Your task to perform on an android device: Open the calendar app, open the side menu, and click the "Day" option Image 0: 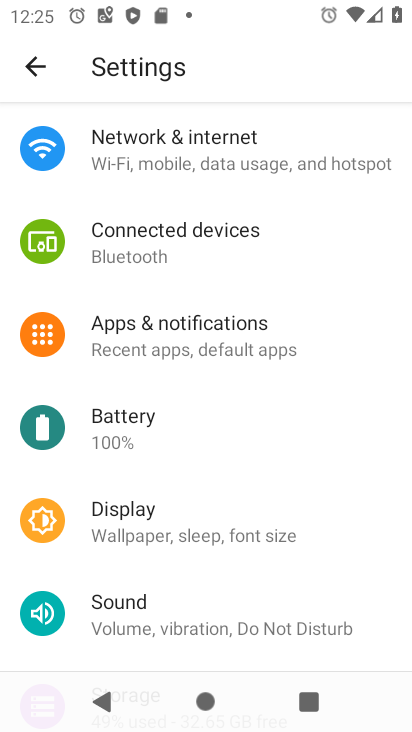
Step 0: press home button
Your task to perform on an android device: Open the calendar app, open the side menu, and click the "Day" option Image 1: 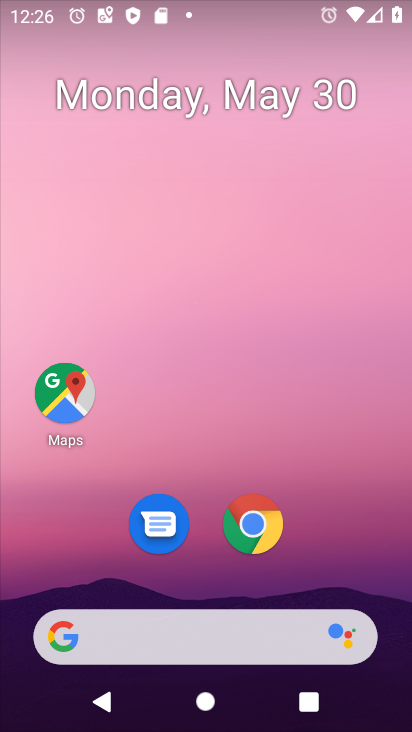
Step 1: drag from (235, 455) to (263, 0)
Your task to perform on an android device: Open the calendar app, open the side menu, and click the "Day" option Image 2: 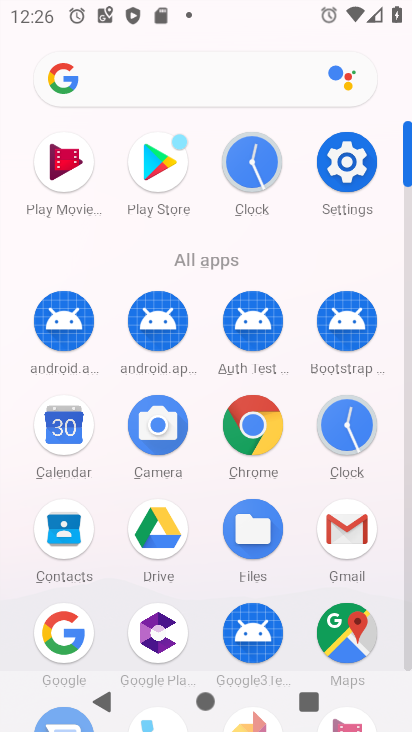
Step 2: click (70, 421)
Your task to perform on an android device: Open the calendar app, open the side menu, and click the "Day" option Image 3: 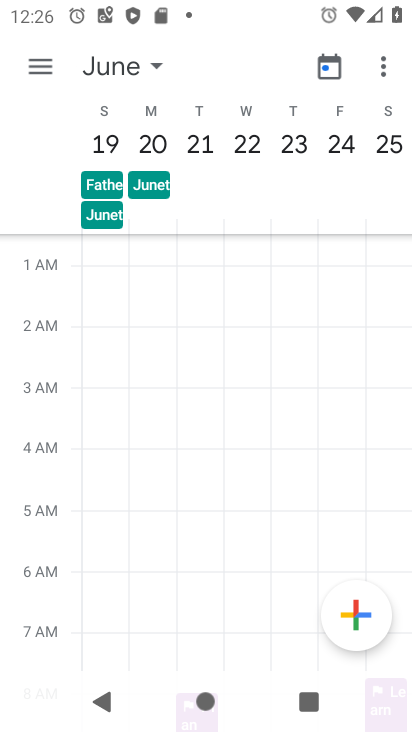
Step 3: click (40, 66)
Your task to perform on an android device: Open the calendar app, open the side menu, and click the "Day" option Image 4: 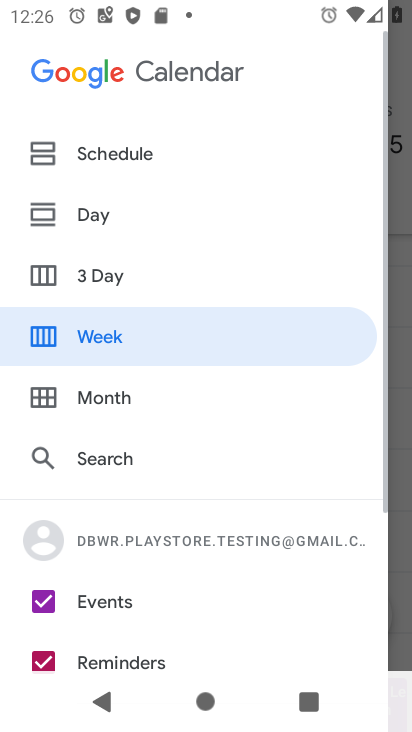
Step 4: click (40, 208)
Your task to perform on an android device: Open the calendar app, open the side menu, and click the "Day" option Image 5: 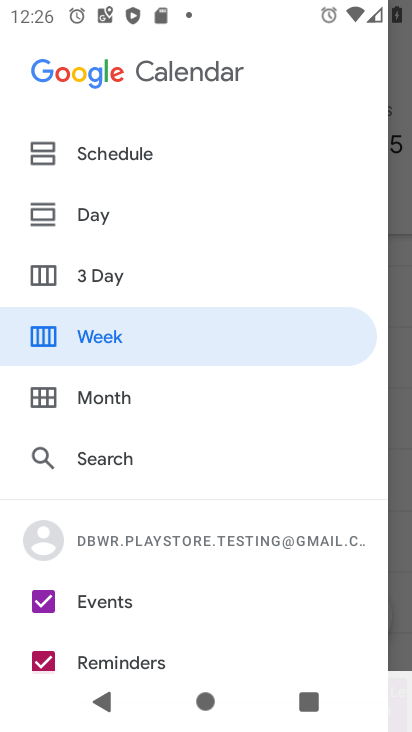
Step 5: click (40, 211)
Your task to perform on an android device: Open the calendar app, open the side menu, and click the "Day" option Image 6: 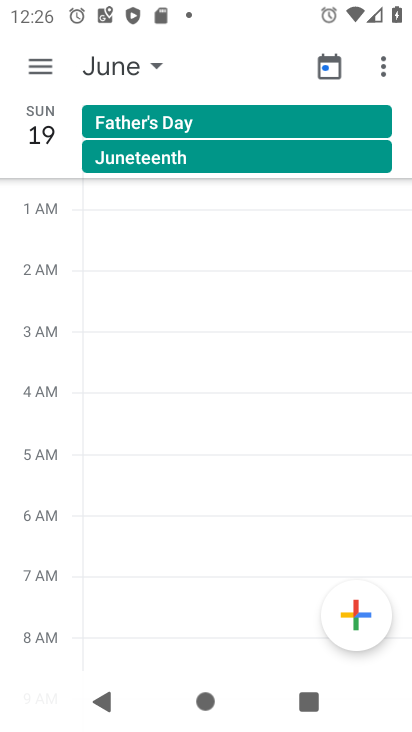
Step 6: task complete